Your task to perform on an android device: turn smart compose on in the gmail app Image 0: 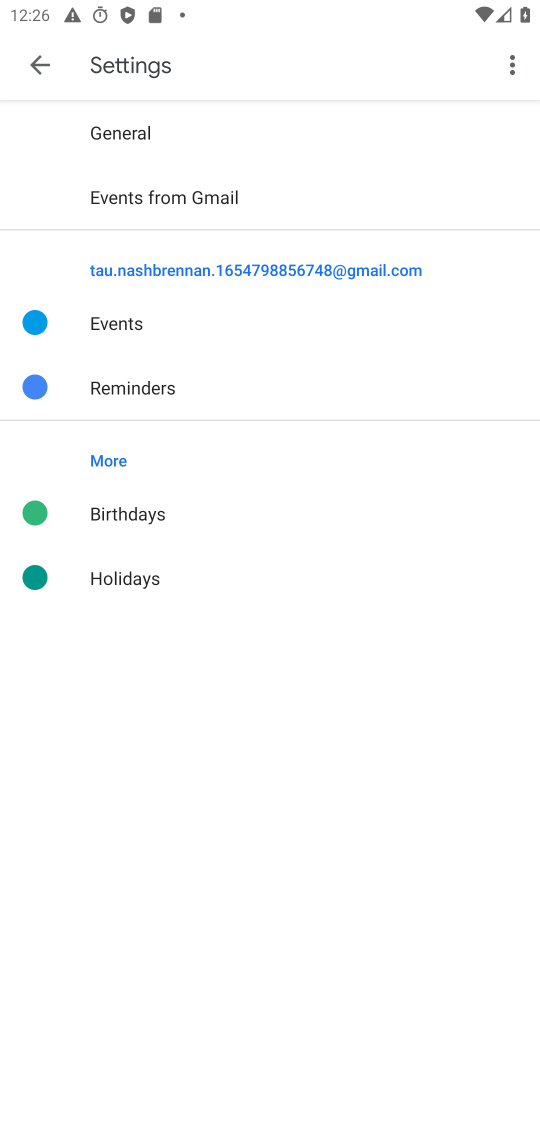
Step 0: press home button
Your task to perform on an android device: turn smart compose on in the gmail app Image 1: 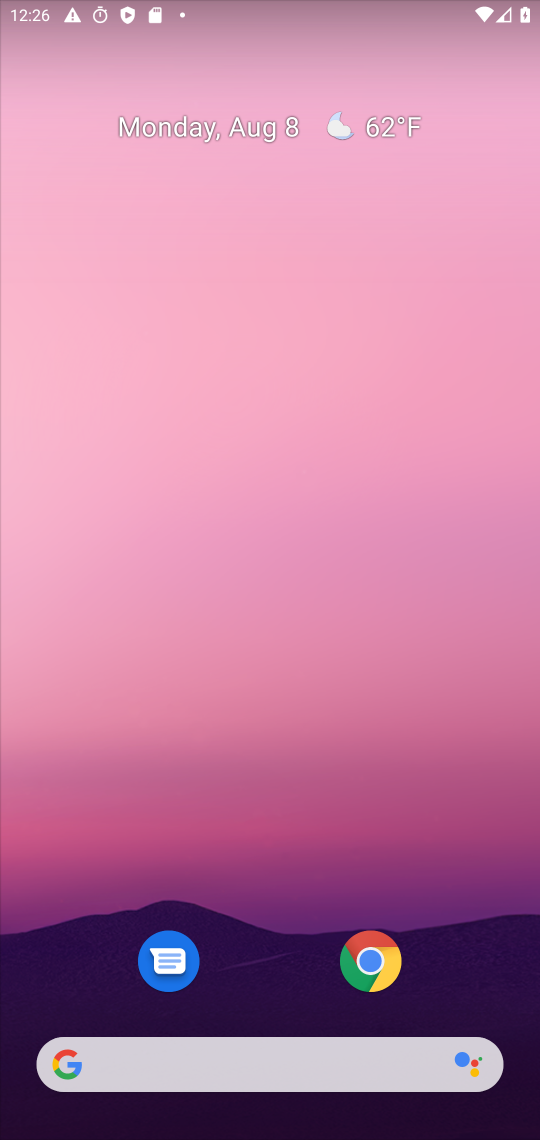
Step 1: drag from (312, 863) to (283, 273)
Your task to perform on an android device: turn smart compose on in the gmail app Image 2: 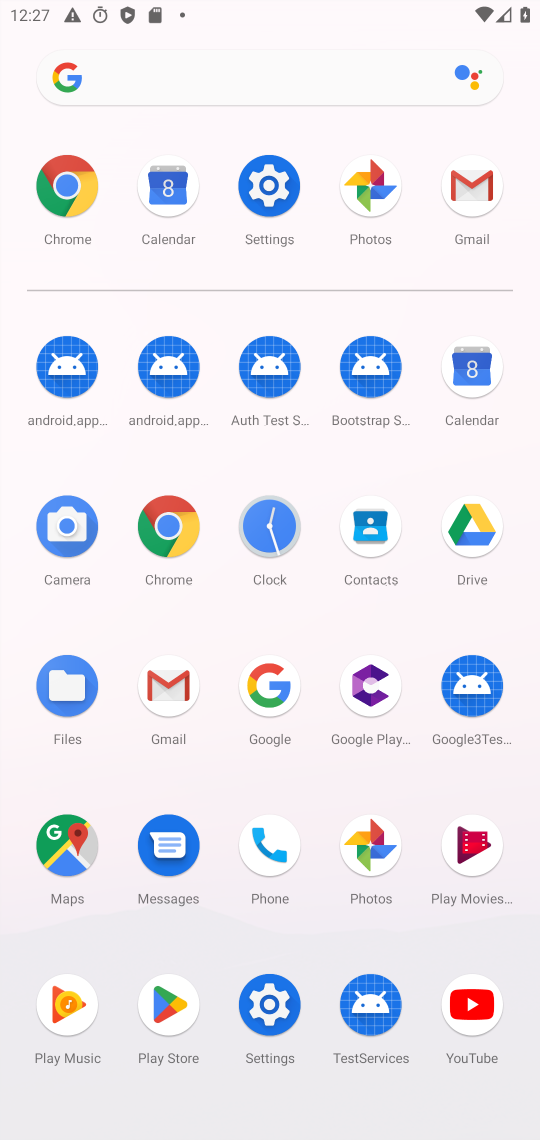
Step 2: click (150, 690)
Your task to perform on an android device: turn smart compose on in the gmail app Image 3: 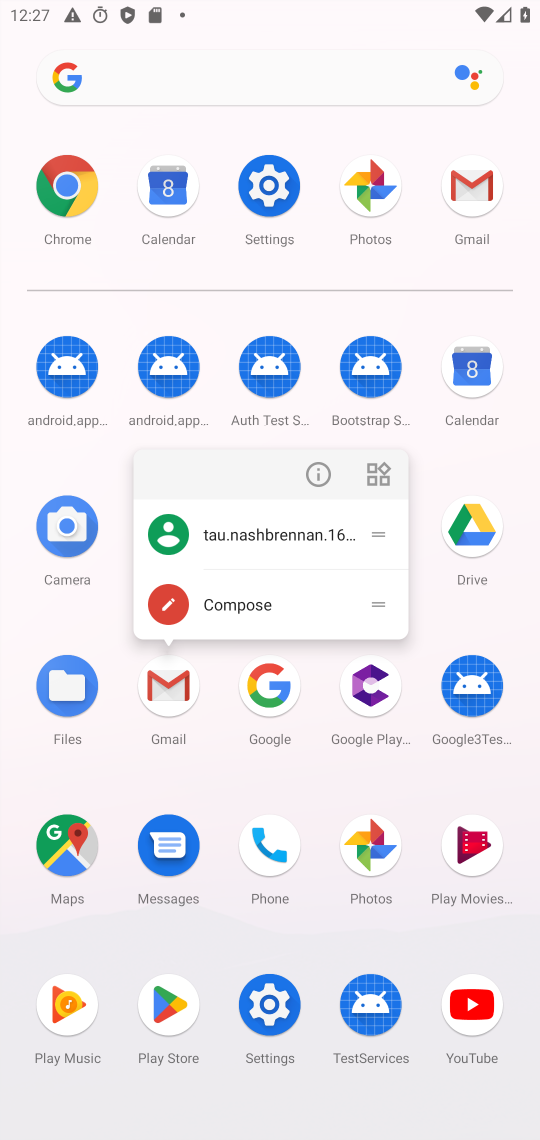
Step 3: click (150, 690)
Your task to perform on an android device: turn smart compose on in the gmail app Image 4: 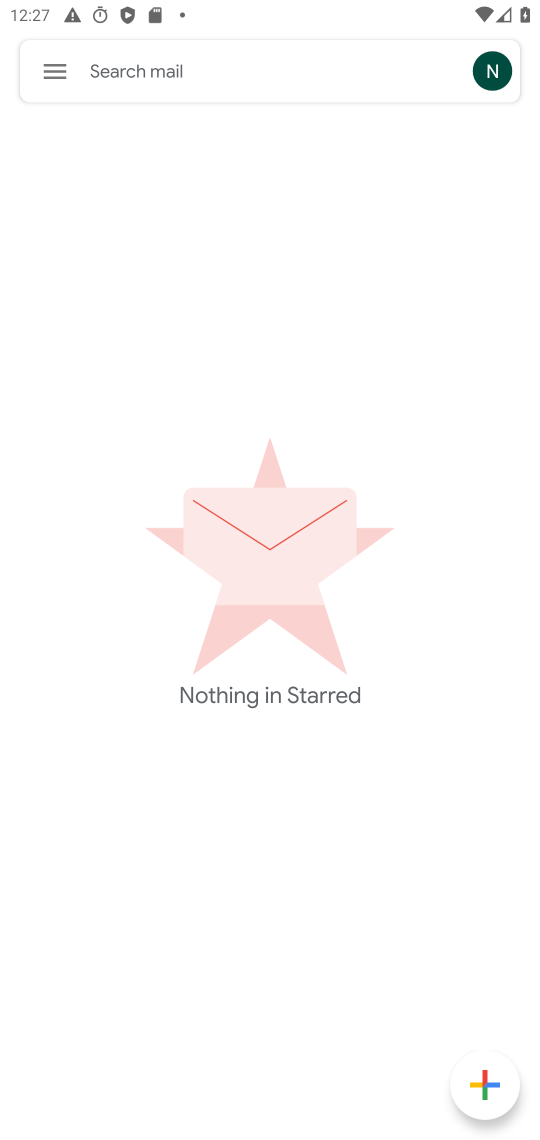
Step 4: click (57, 67)
Your task to perform on an android device: turn smart compose on in the gmail app Image 5: 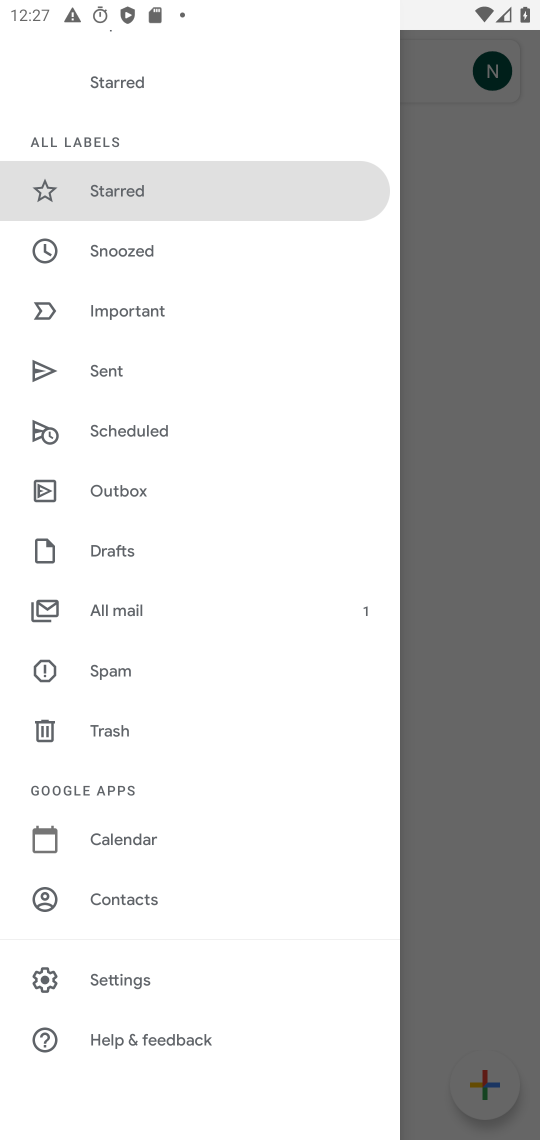
Step 5: click (108, 961)
Your task to perform on an android device: turn smart compose on in the gmail app Image 6: 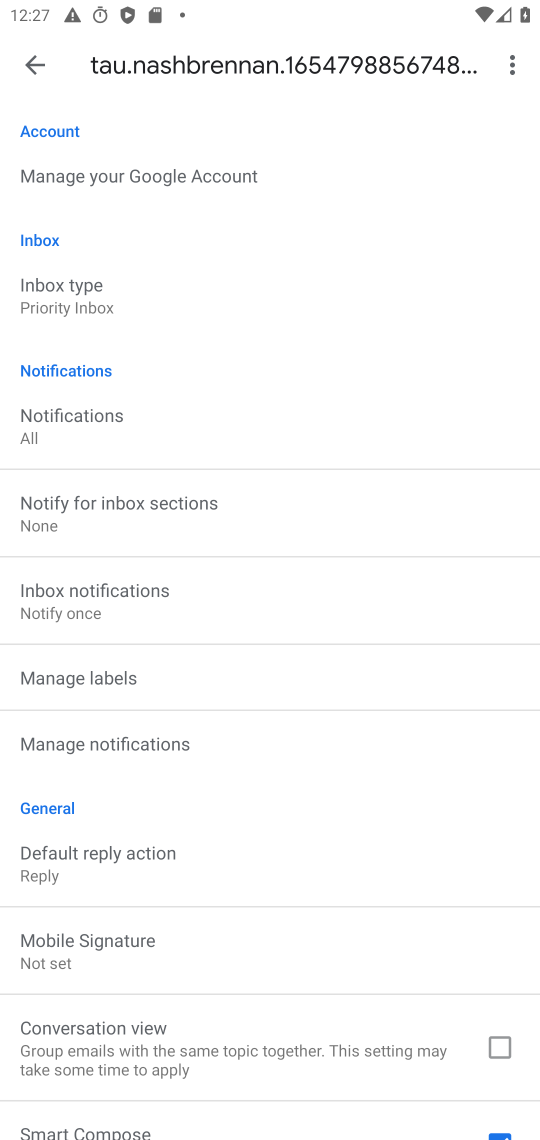
Step 6: task complete